Your task to perform on an android device: Go to sound settings Image 0: 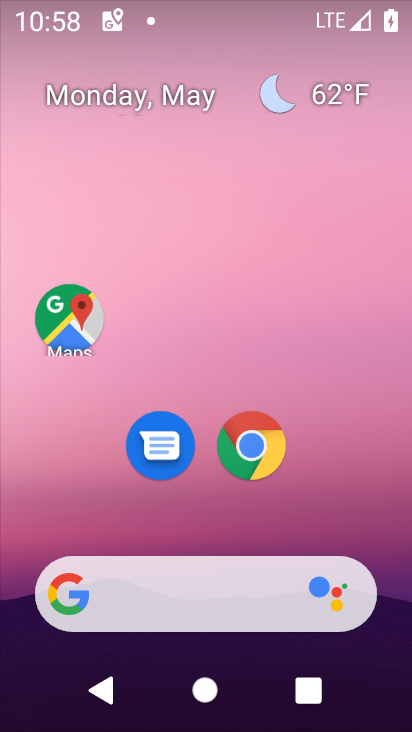
Step 0: drag from (382, 610) to (361, 104)
Your task to perform on an android device: Go to sound settings Image 1: 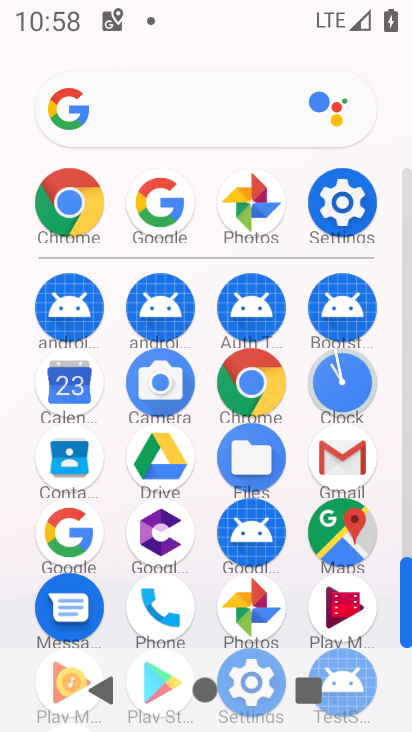
Step 1: click (359, 208)
Your task to perform on an android device: Go to sound settings Image 2: 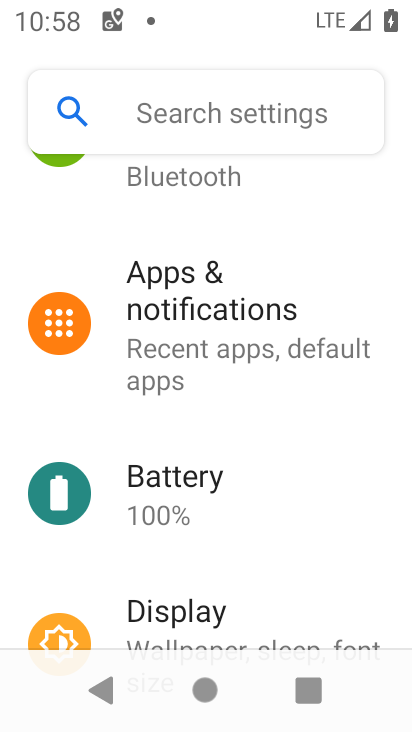
Step 2: drag from (251, 579) to (264, 225)
Your task to perform on an android device: Go to sound settings Image 3: 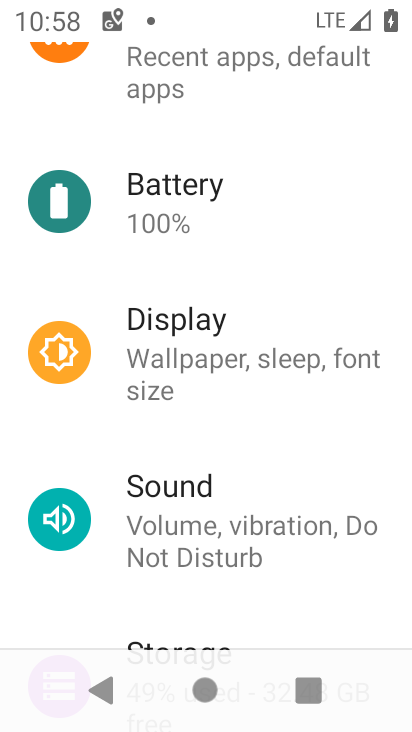
Step 3: click (208, 505)
Your task to perform on an android device: Go to sound settings Image 4: 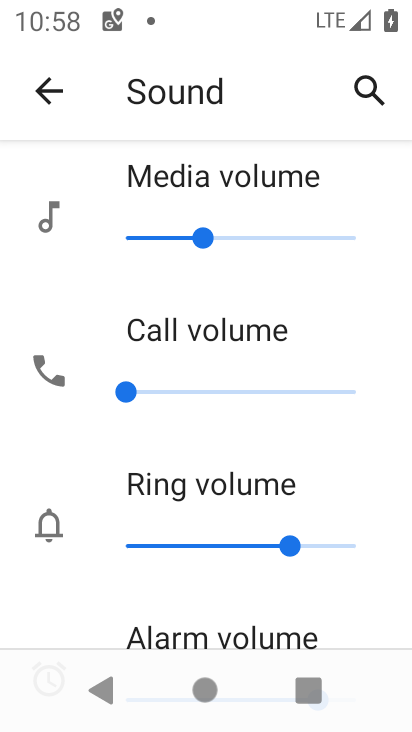
Step 4: task complete